Your task to perform on an android device: stop showing notifications on the lock screen Image 0: 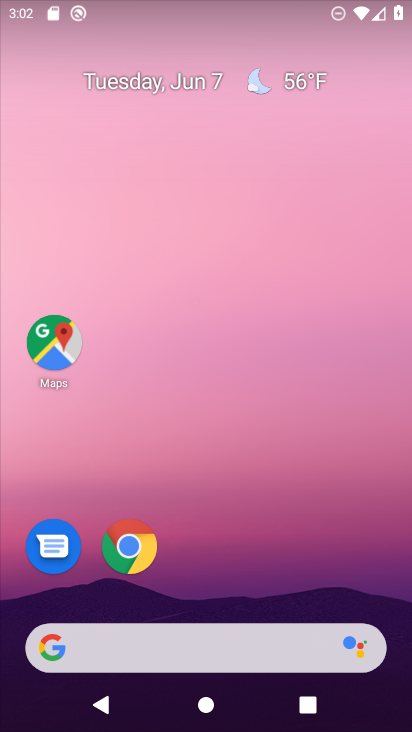
Step 0: drag from (312, 498) to (243, 1)
Your task to perform on an android device: stop showing notifications on the lock screen Image 1: 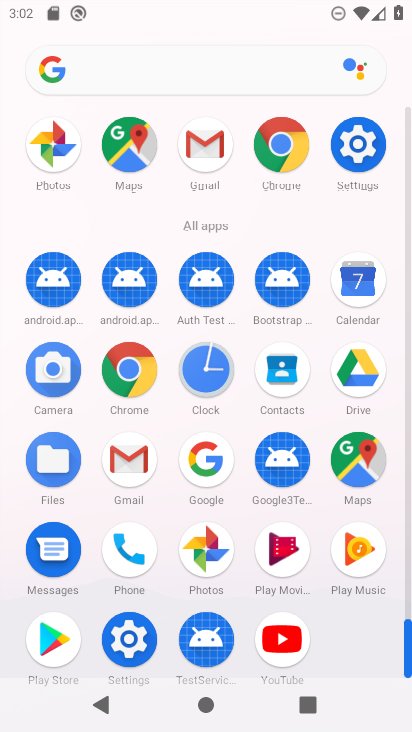
Step 1: drag from (4, 589) to (21, 312)
Your task to perform on an android device: stop showing notifications on the lock screen Image 2: 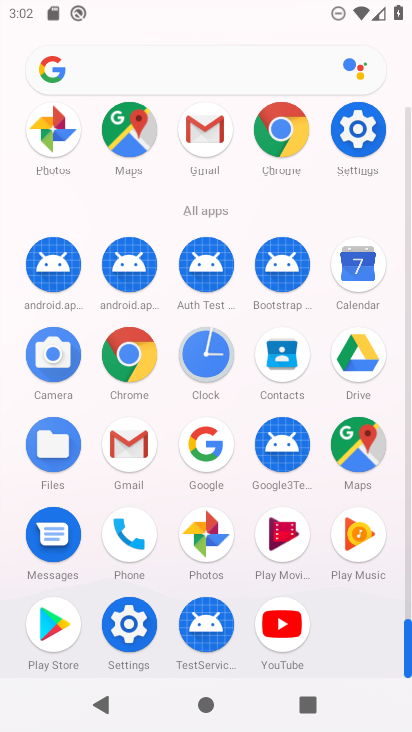
Step 2: click (129, 623)
Your task to perform on an android device: stop showing notifications on the lock screen Image 3: 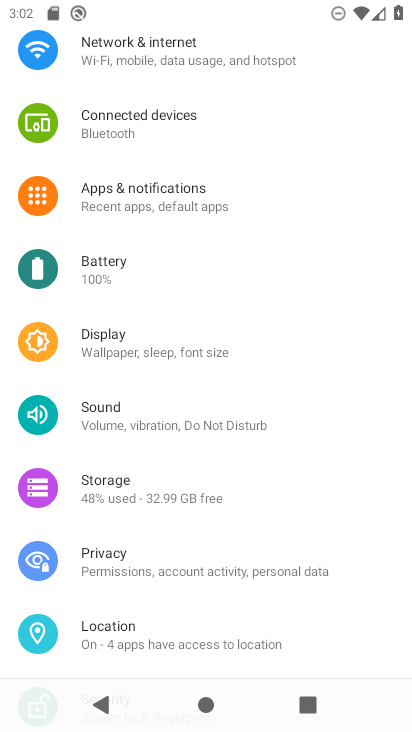
Step 3: drag from (222, 203) to (212, 564)
Your task to perform on an android device: stop showing notifications on the lock screen Image 4: 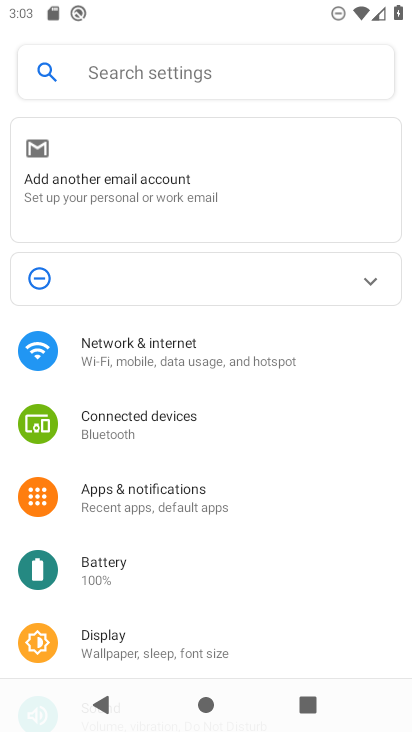
Step 4: click (184, 487)
Your task to perform on an android device: stop showing notifications on the lock screen Image 5: 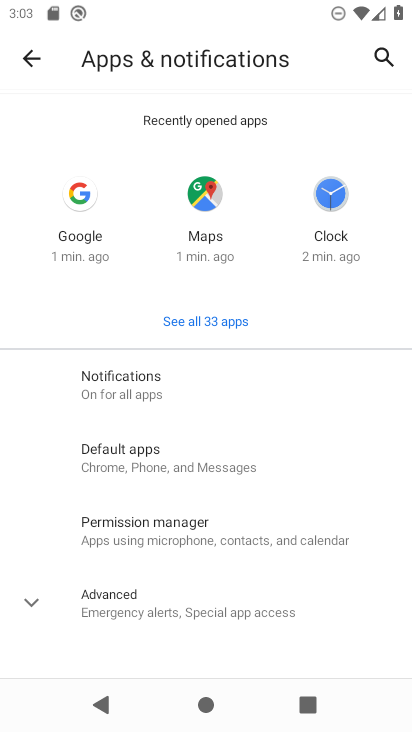
Step 5: click (28, 594)
Your task to perform on an android device: stop showing notifications on the lock screen Image 6: 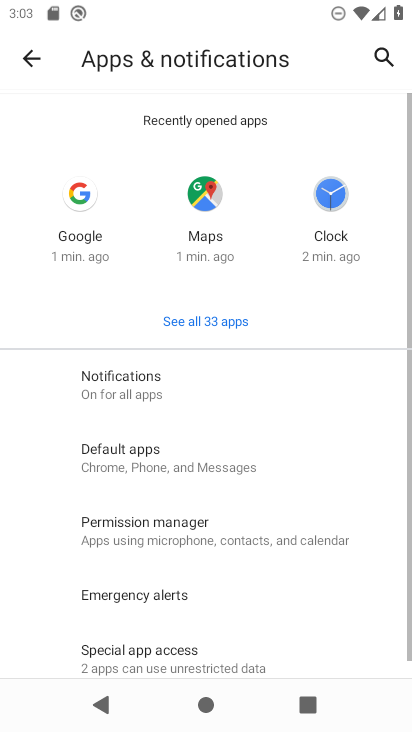
Step 6: click (172, 380)
Your task to perform on an android device: stop showing notifications on the lock screen Image 7: 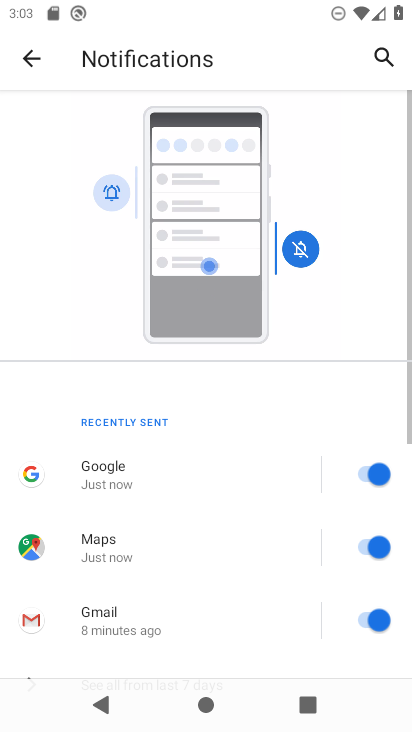
Step 7: drag from (265, 634) to (296, 91)
Your task to perform on an android device: stop showing notifications on the lock screen Image 8: 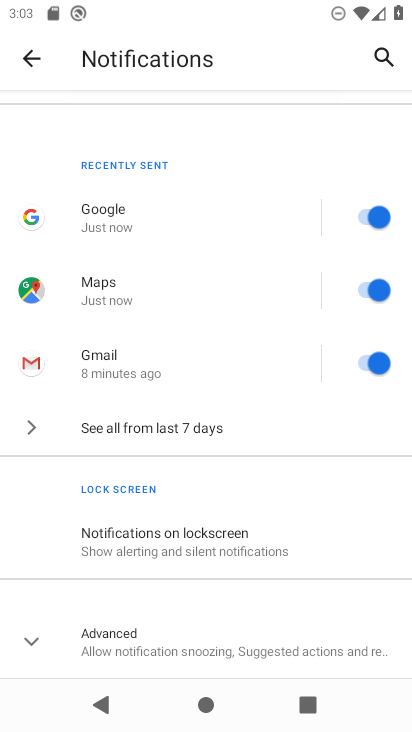
Step 8: click (61, 634)
Your task to perform on an android device: stop showing notifications on the lock screen Image 9: 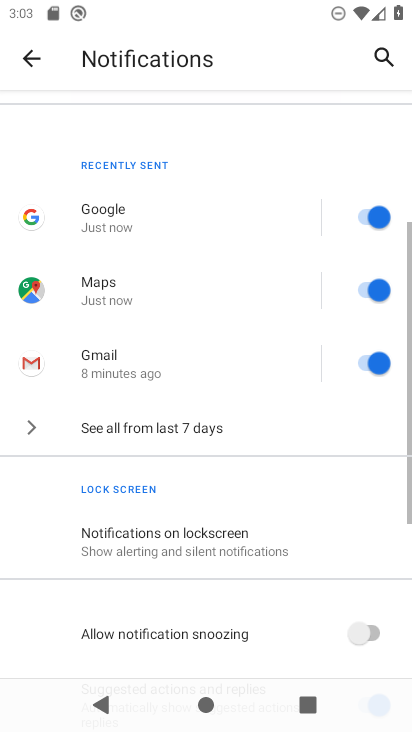
Step 9: drag from (243, 550) to (260, 97)
Your task to perform on an android device: stop showing notifications on the lock screen Image 10: 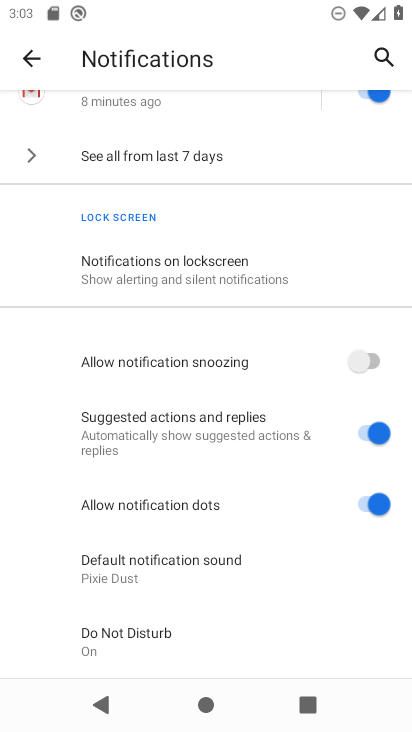
Step 10: drag from (241, 522) to (253, 206)
Your task to perform on an android device: stop showing notifications on the lock screen Image 11: 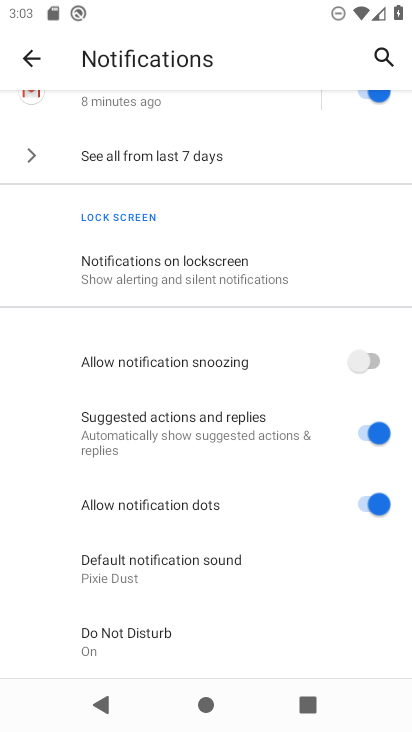
Step 11: click (365, 499)
Your task to perform on an android device: stop showing notifications on the lock screen Image 12: 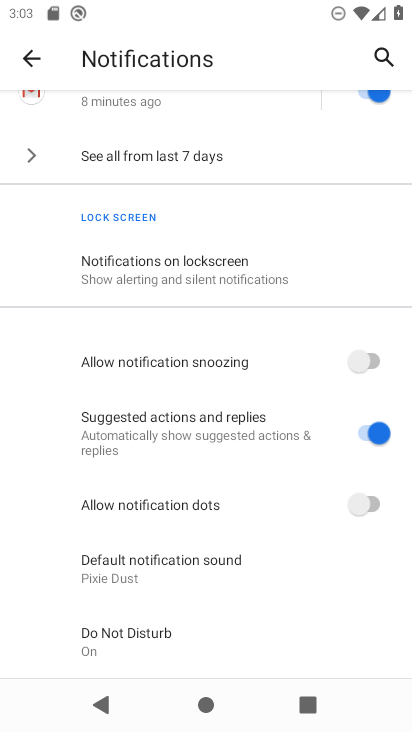
Step 12: click (202, 281)
Your task to perform on an android device: stop showing notifications on the lock screen Image 13: 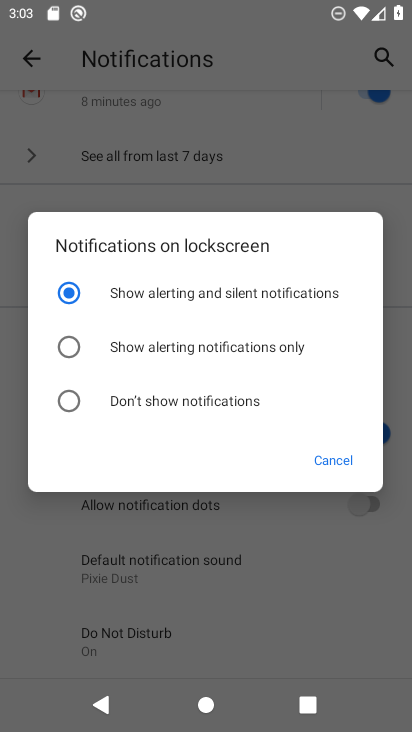
Step 13: click (140, 398)
Your task to perform on an android device: stop showing notifications on the lock screen Image 14: 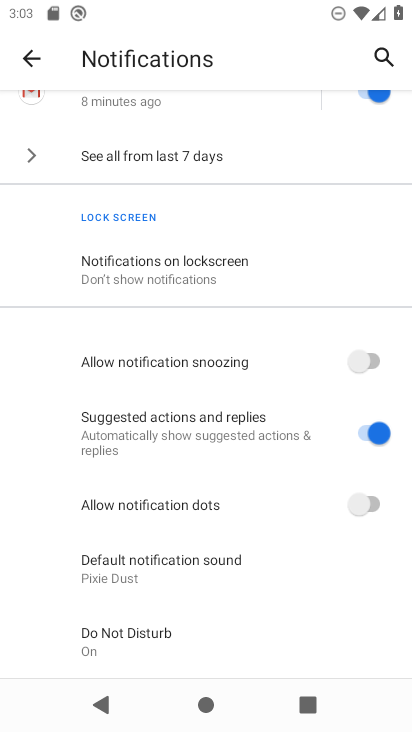
Step 14: task complete